Your task to perform on an android device: Open calendar and show me the second week of next month Image 0: 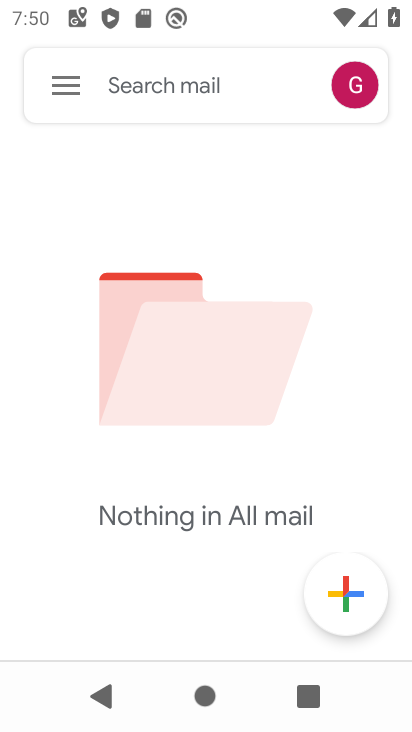
Step 0: press home button
Your task to perform on an android device: Open calendar and show me the second week of next month Image 1: 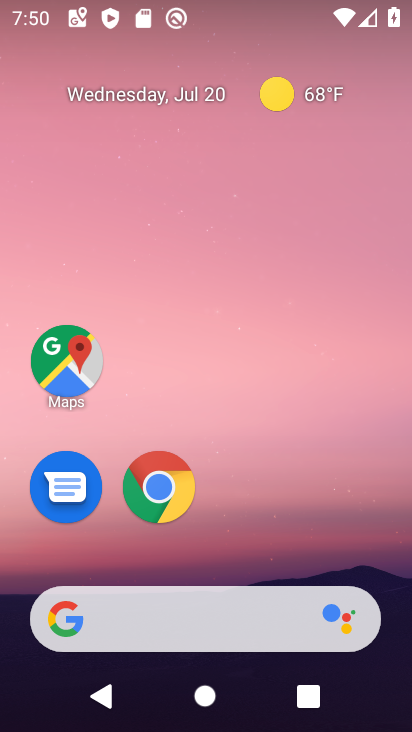
Step 1: drag from (345, 538) to (334, 156)
Your task to perform on an android device: Open calendar and show me the second week of next month Image 2: 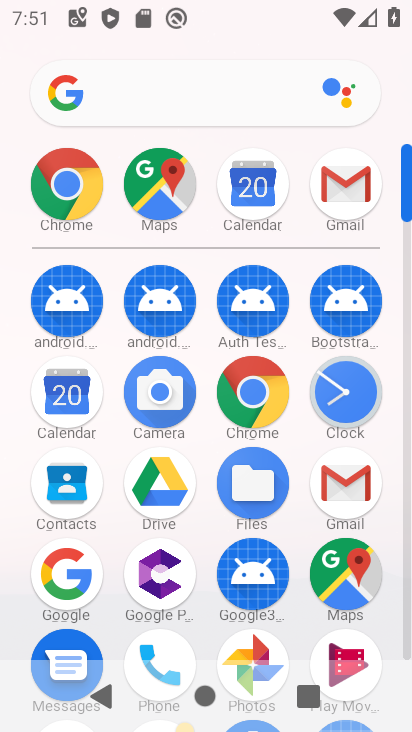
Step 2: click (81, 395)
Your task to perform on an android device: Open calendar and show me the second week of next month Image 3: 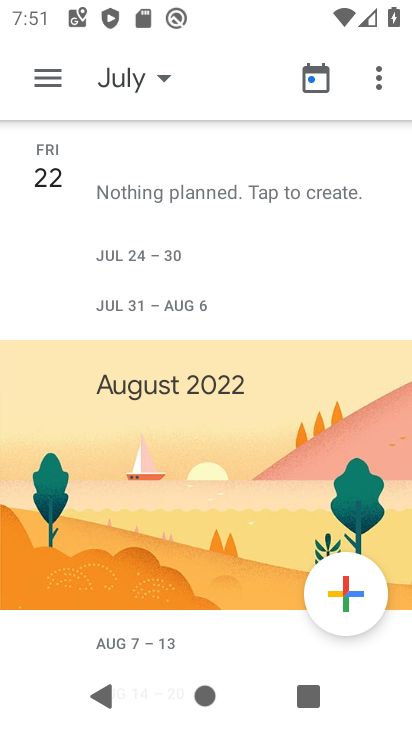
Step 3: click (159, 79)
Your task to perform on an android device: Open calendar and show me the second week of next month Image 4: 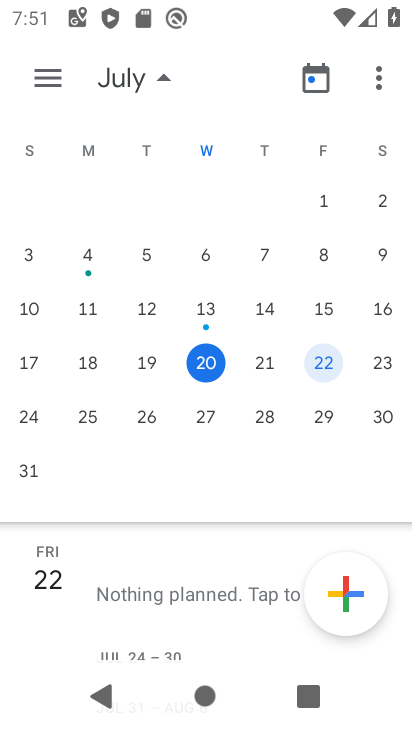
Step 4: drag from (411, 227) to (2, 207)
Your task to perform on an android device: Open calendar and show me the second week of next month Image 5: 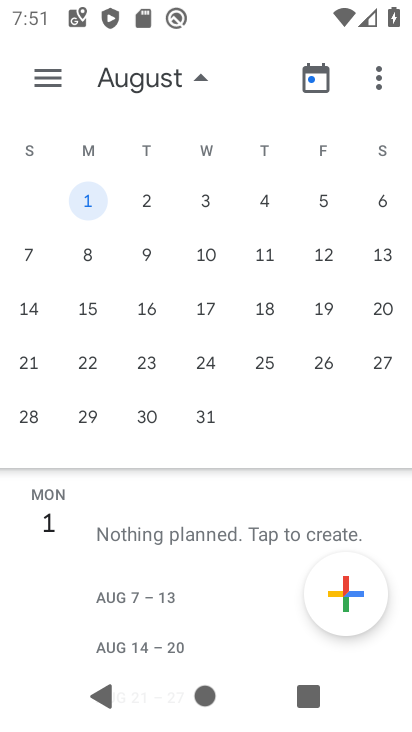
Step 5: click (87, 256)
Your task to perform on an android device: Open calendar and show me the second week of next month Image 6: 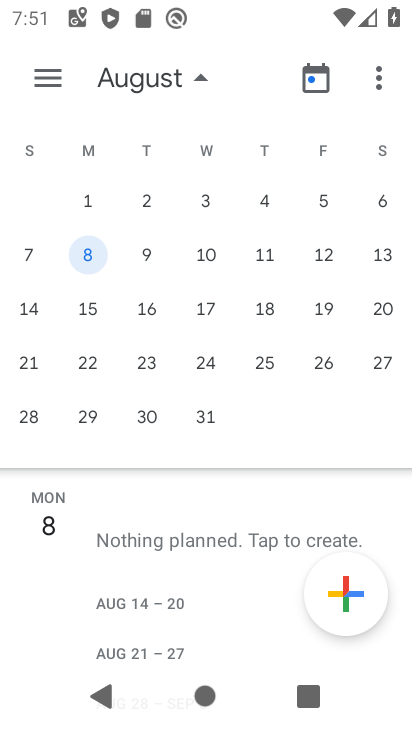
Step 6: task complete